Your task to perform on an android device: open the mobile data screen to see how much data has been used Image 0: 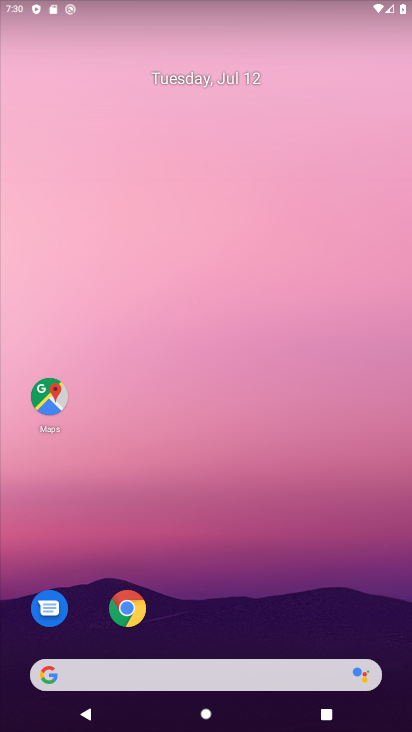
Step 0: drag from (168, 646) to (195, 71)
Your task to perform on an android device: open the mobile data screen to see how much data has been used Image 1: 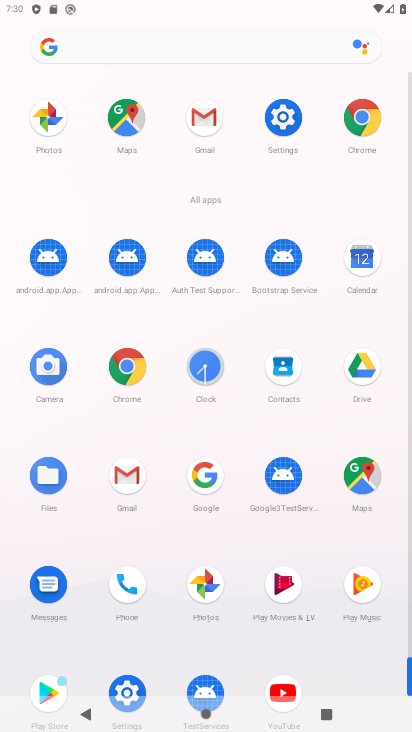
Step 1: click (278, 108)
Your task to perform on an android device: open the mobile data screen to see how much data has been used Image 2: 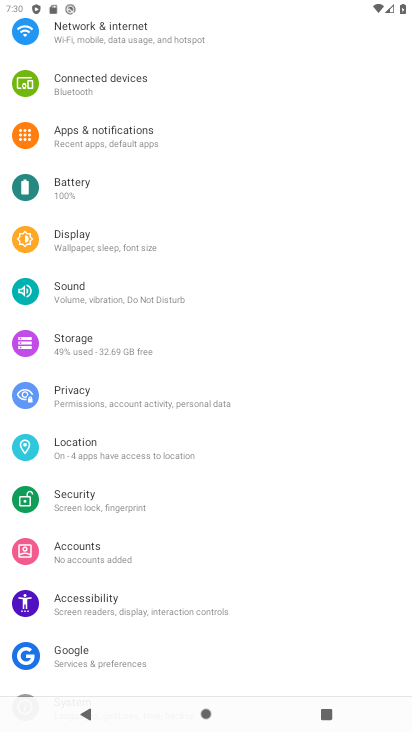
Step 2: drag from (119, 32) to (145, 385)
Your task to perform on an android device: open the mobile data screen to see how much data has been used Image 3: 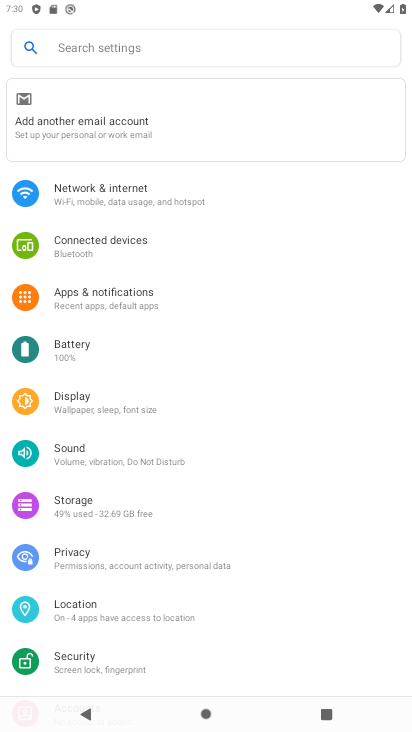
Step 3: click (101, 195)
Your task to perform on an android device: open the mobile data screen to see how much data has been used Image 4: 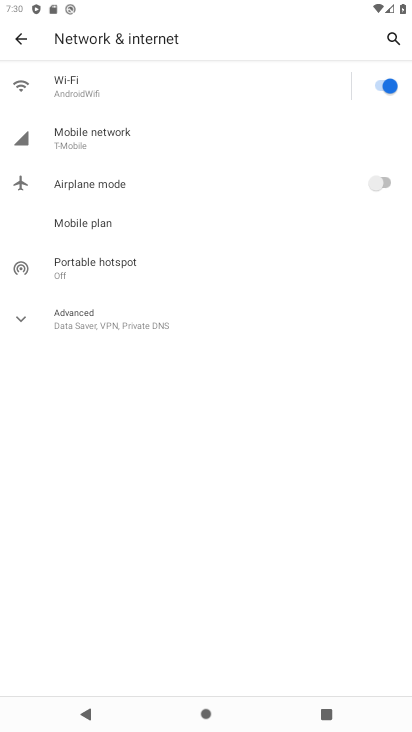
Step 4: click (134, 136)
Your task to perform on an android device: open the mobile data screen to see how much data has been used Image 5: 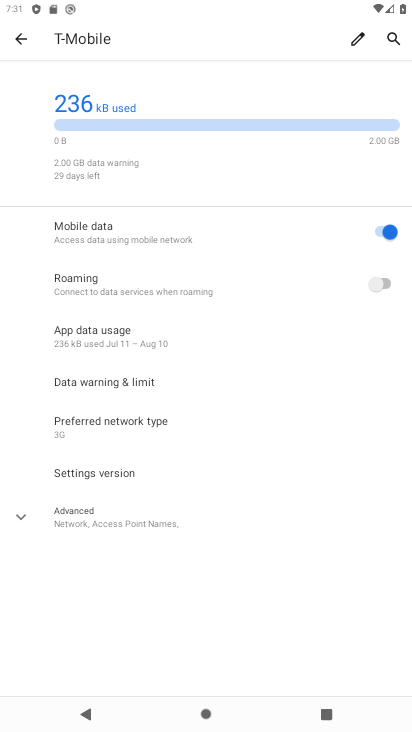
Step 5: task complete